Your task to perform on an android device: Go to location settings Image 0: 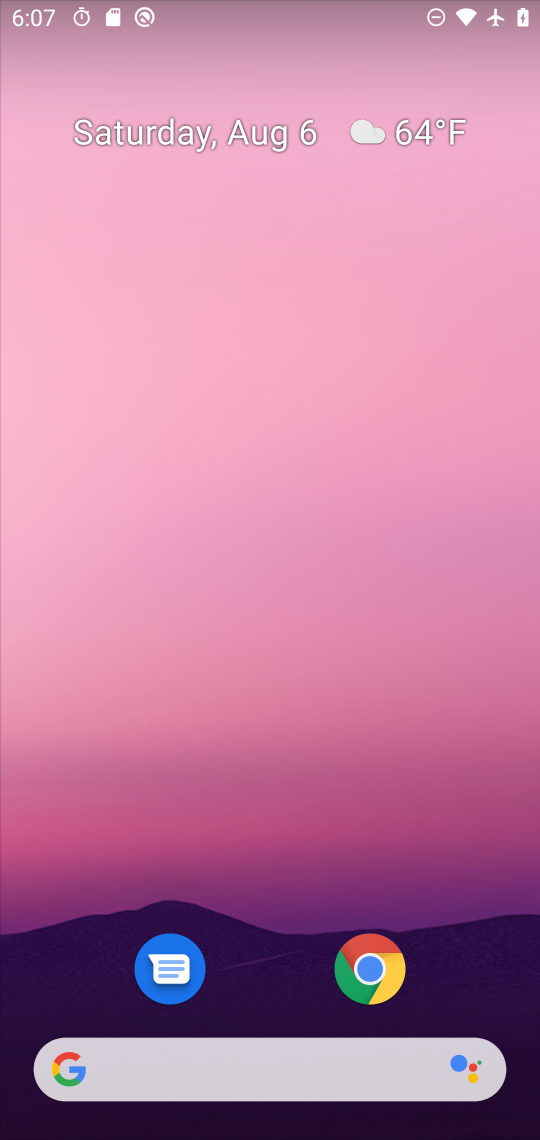
Step 0: press home button
Your task to perform on an android device: Go to location settings Image 1: 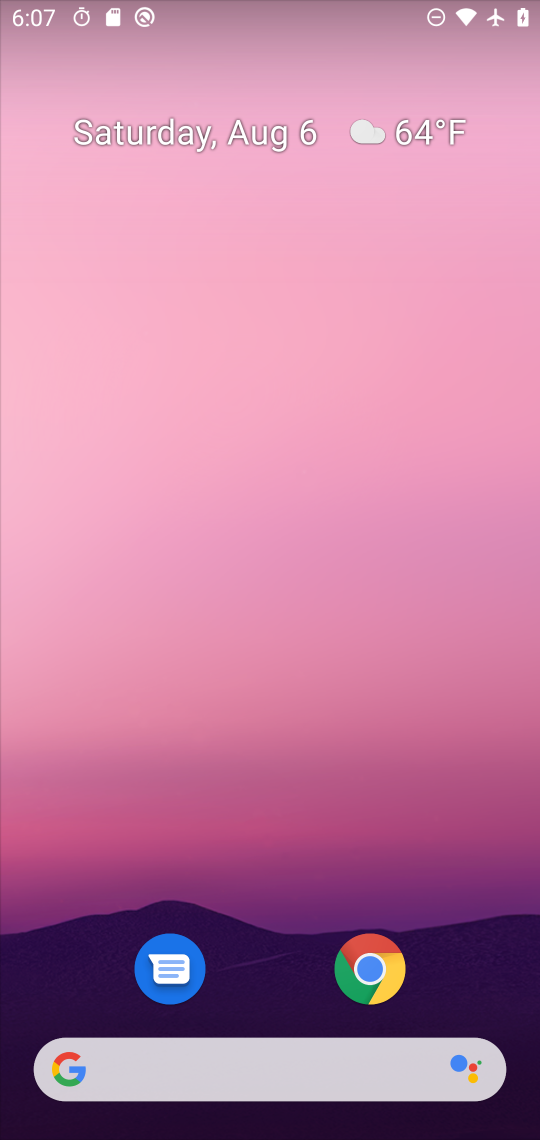
Step 1: drag from (319, 984) to (419, 205)
Your task to perform on an android device: Go to location settings Image 2: 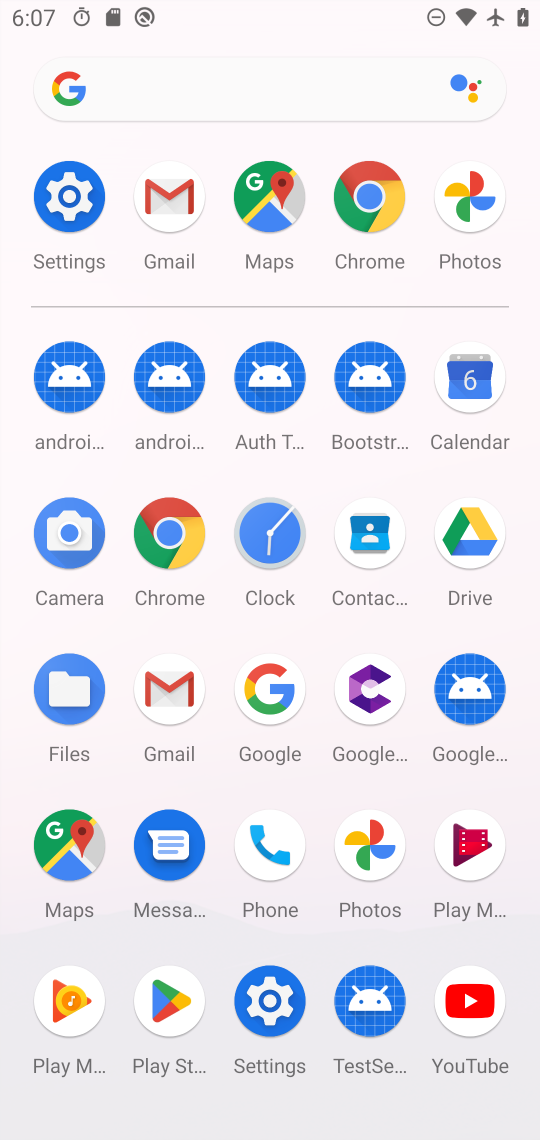
Step 2: click (45, 202)
Your task to perform on an android device: Go to location settings Image 3: 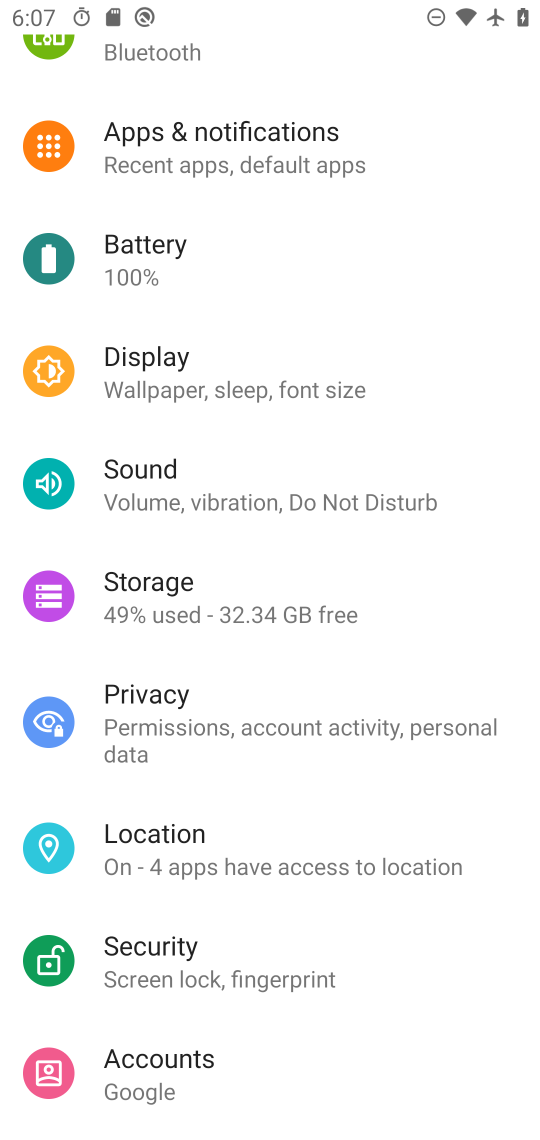
Step 3: click (140, 871)
Your task to perform on an android device: Go to location settings Image 4: 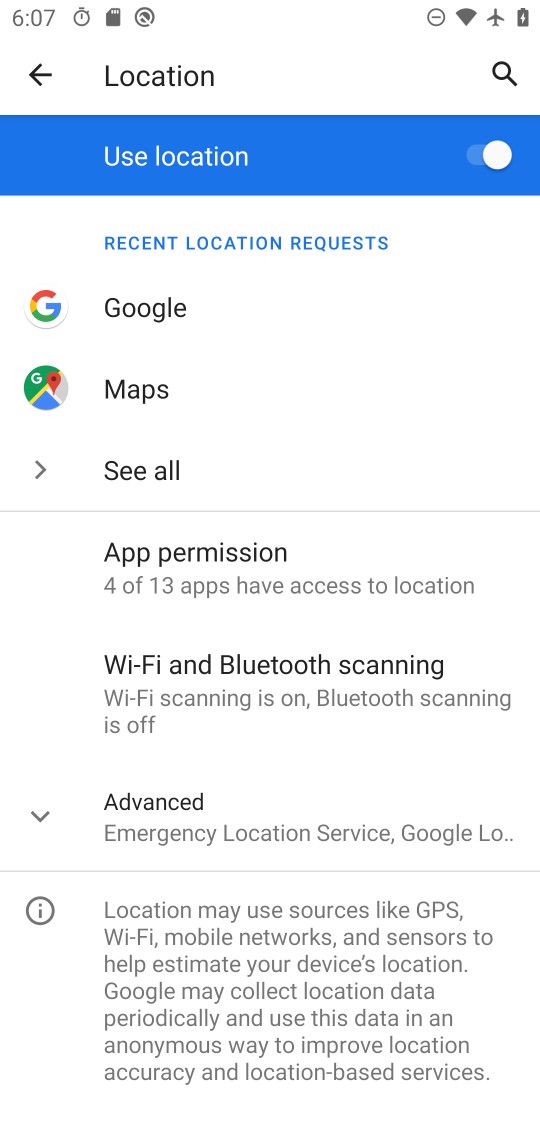
Step 4: task complete